Your task to perform on an android device: install app "Chime – Mobile Banking" Image 0: 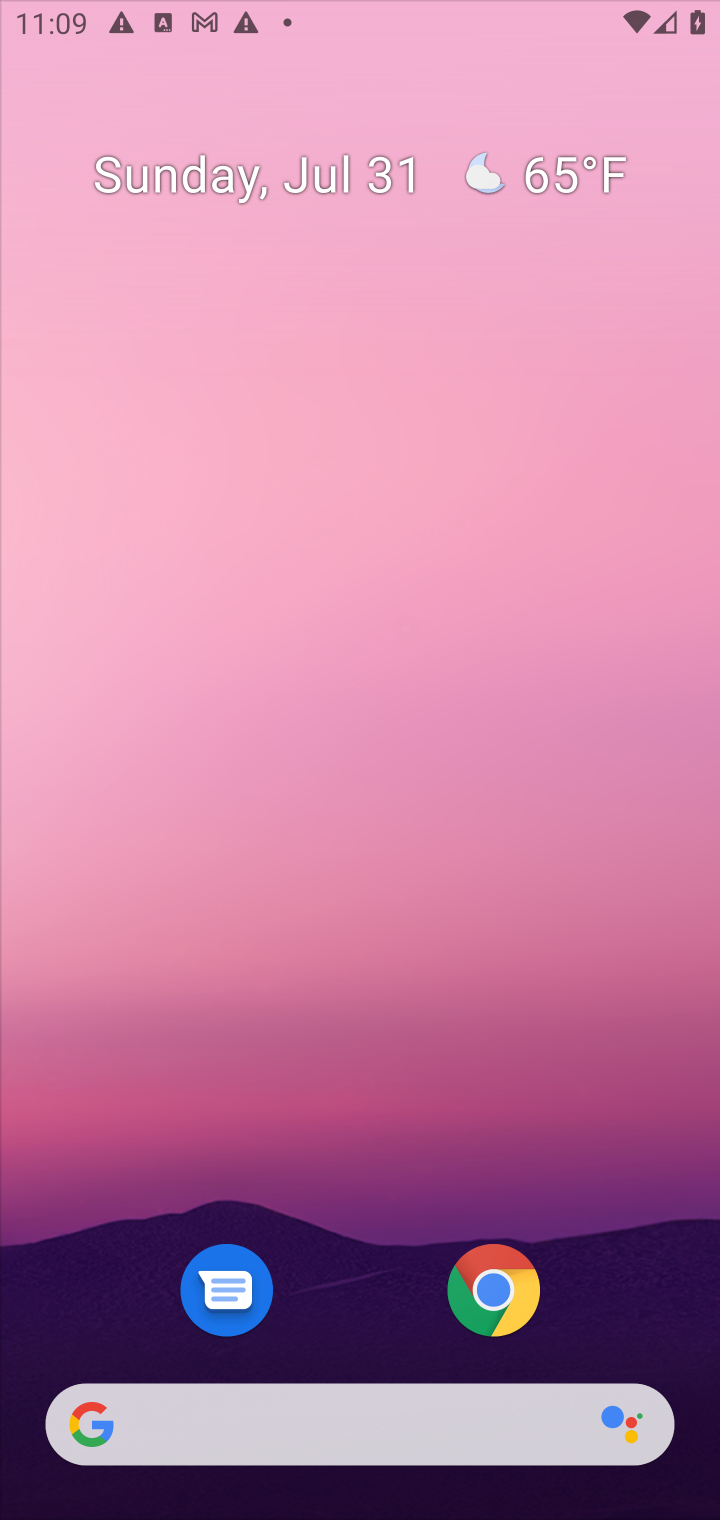
Step 0: press home button
Your task to perform on an android device: install app "Chime – Mobile Banking" Image 1: 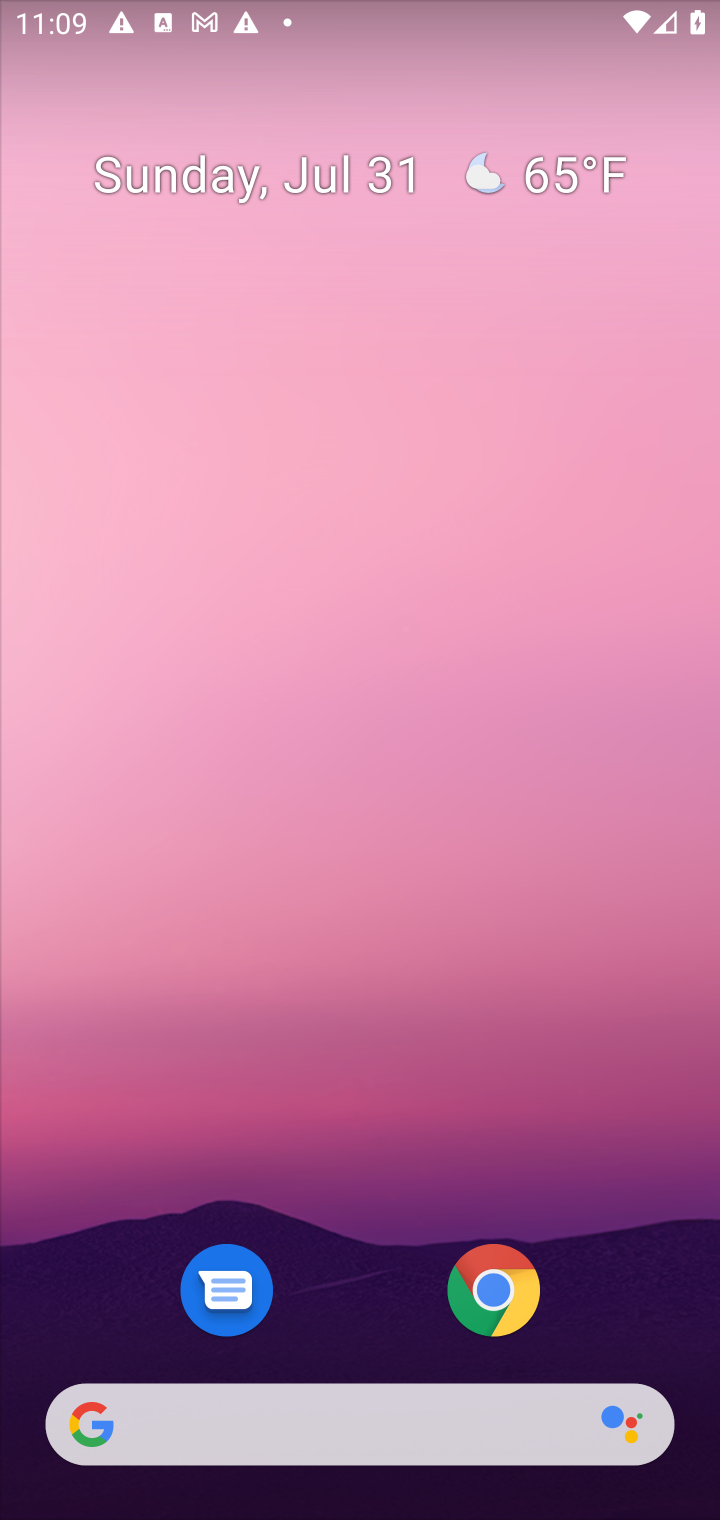
Step 1: drag from (604, 1118) to (565, 167)
Your task to perform on an android device: install app "Chime – Mobile Banking" Image 2: 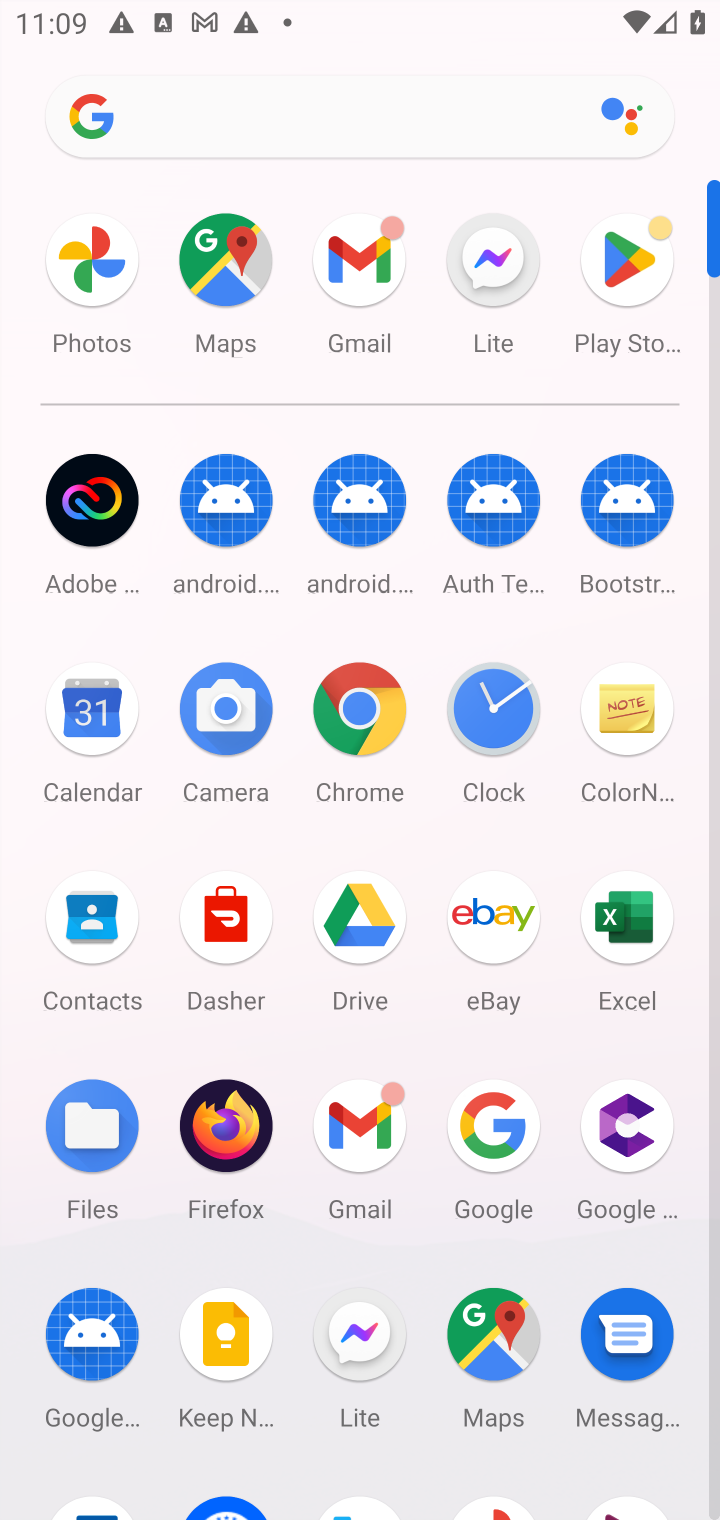
Step 2: click (621, 261)
Your task to perform on an android device: install app "Chime – Mobile Banking" Image 3: 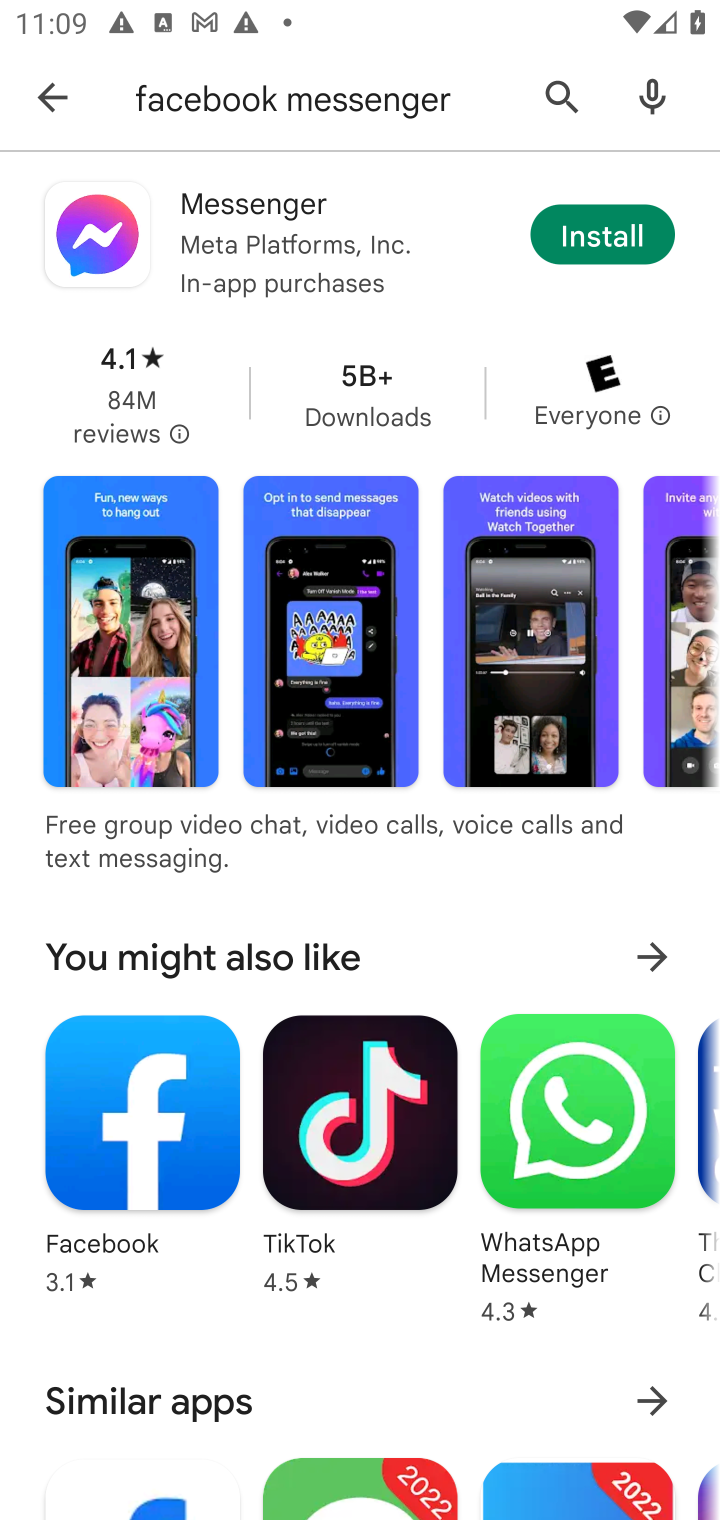
Step 3: click (556, 88)
Your task to perform on an android device: install app "Chime – Mobile Banking" Image 4: 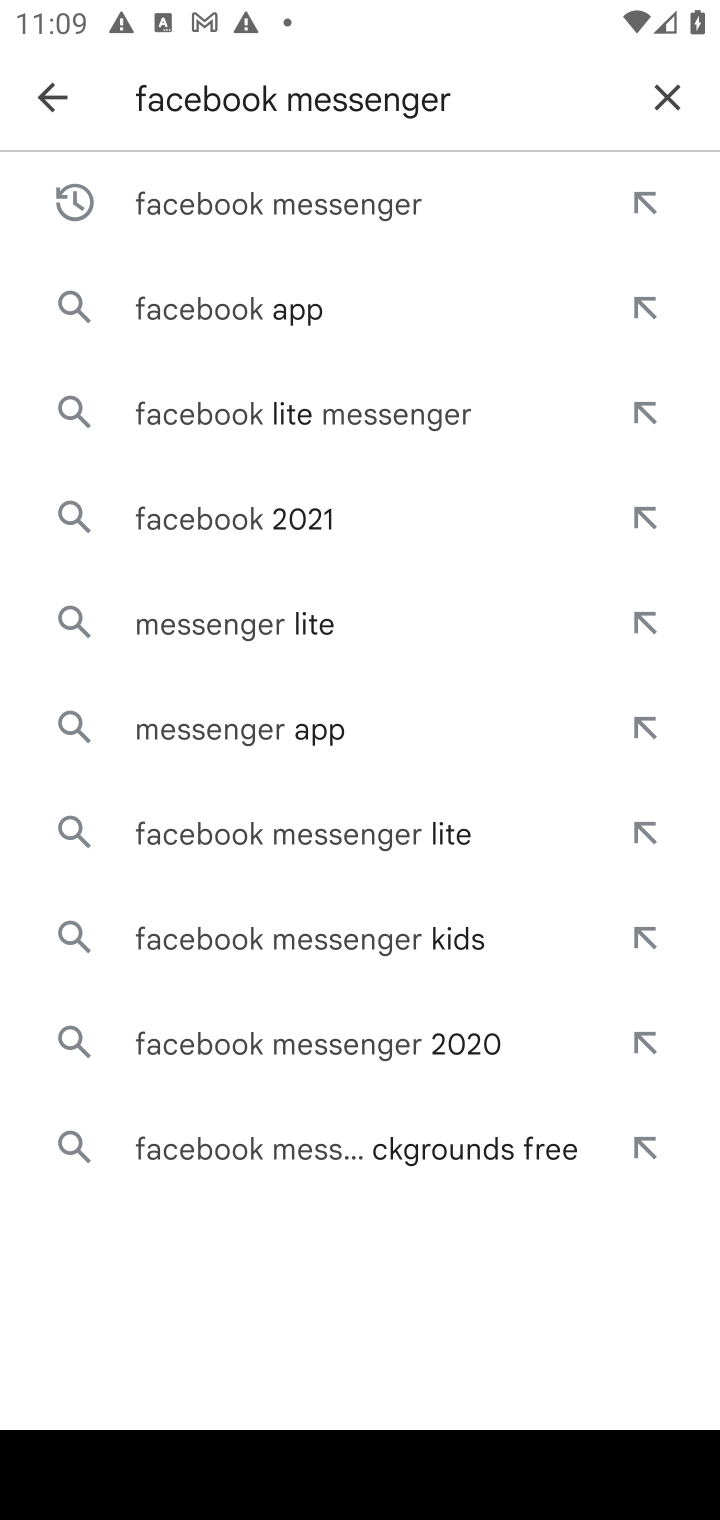
Step 4: click (669, 90)
Your task to perform on an android device: install app "Chime – Mobile Banking" Image 5: 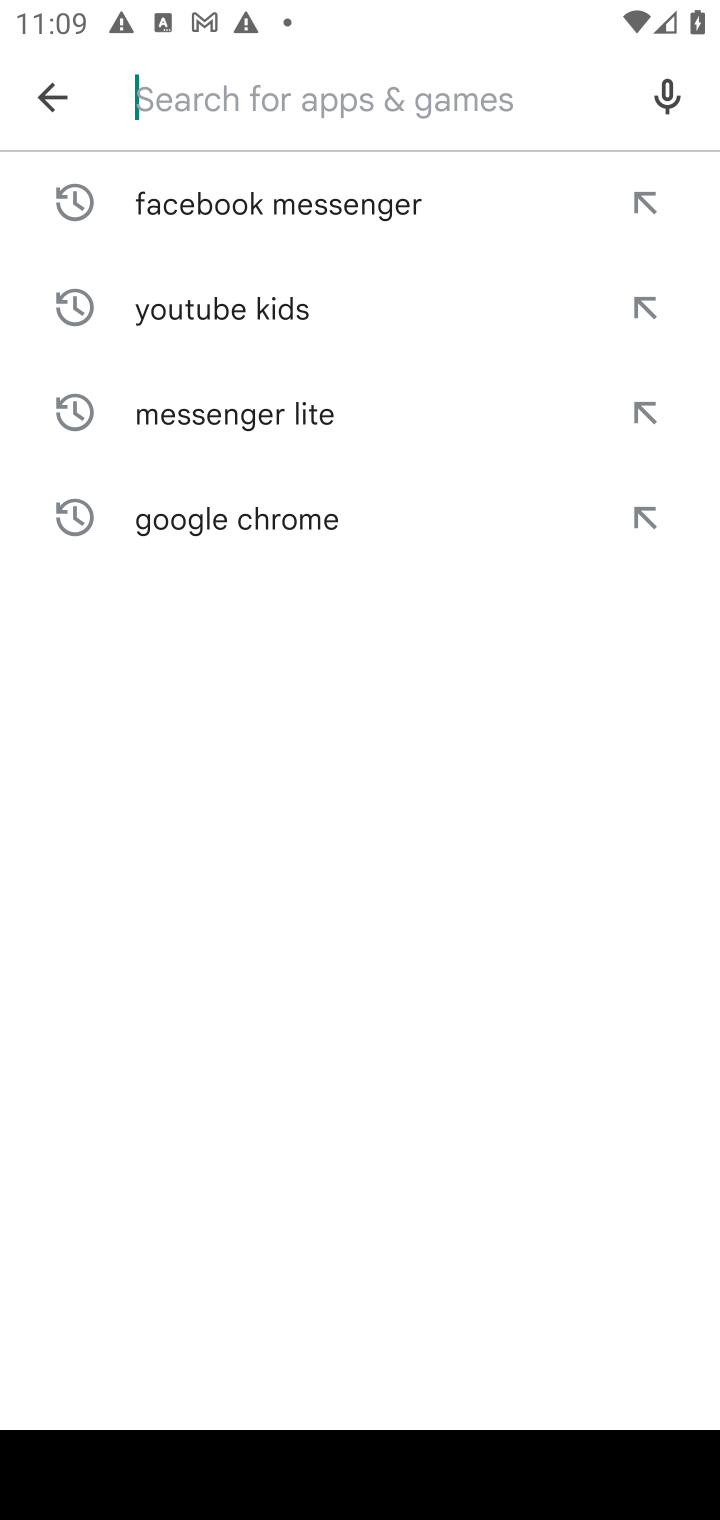
Step 5: type "mobile banking"
Your task to perform on an android device: install app "Chime – Mobile Banking" Image 6: 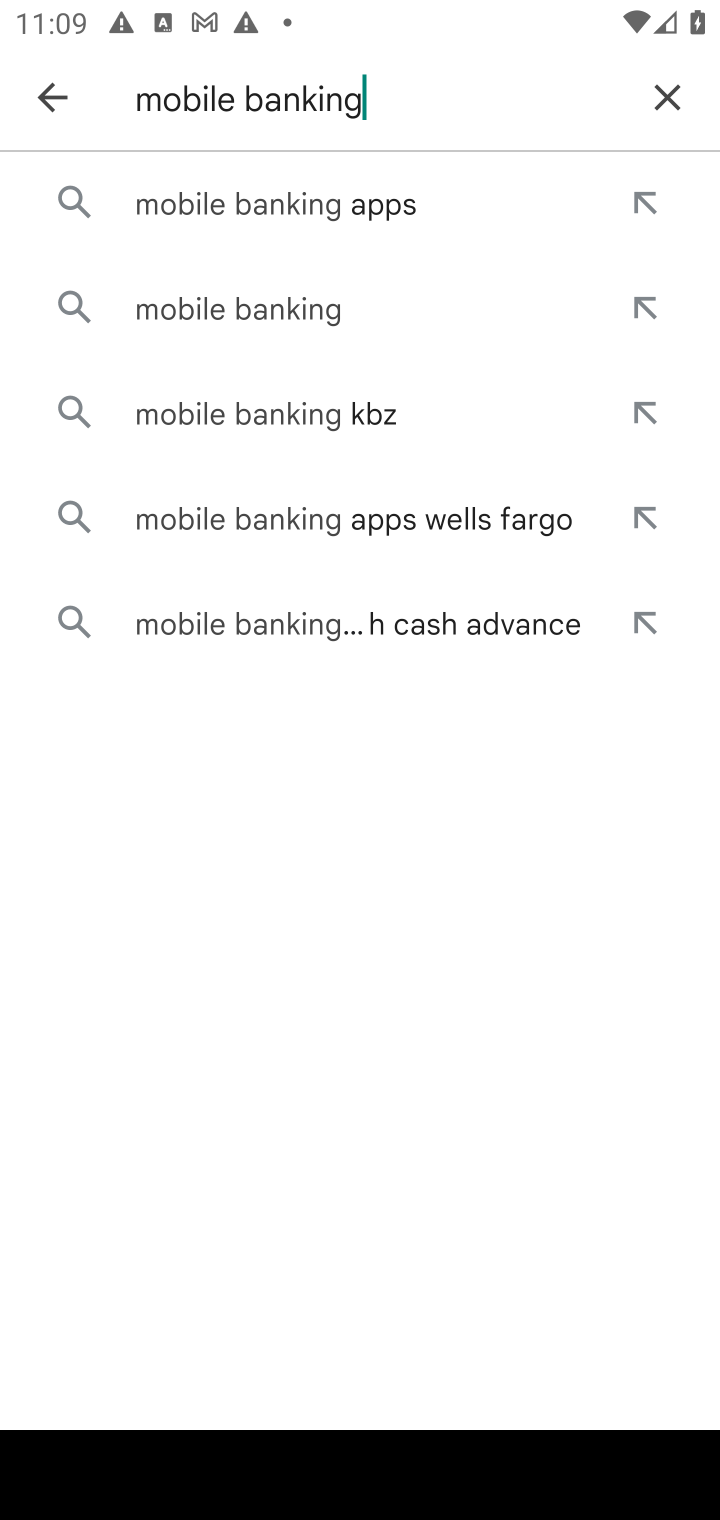
Step 6: click (289, 311)
Your task to perform on an android device: install app "Chime – Mobile Banking" Image 7: 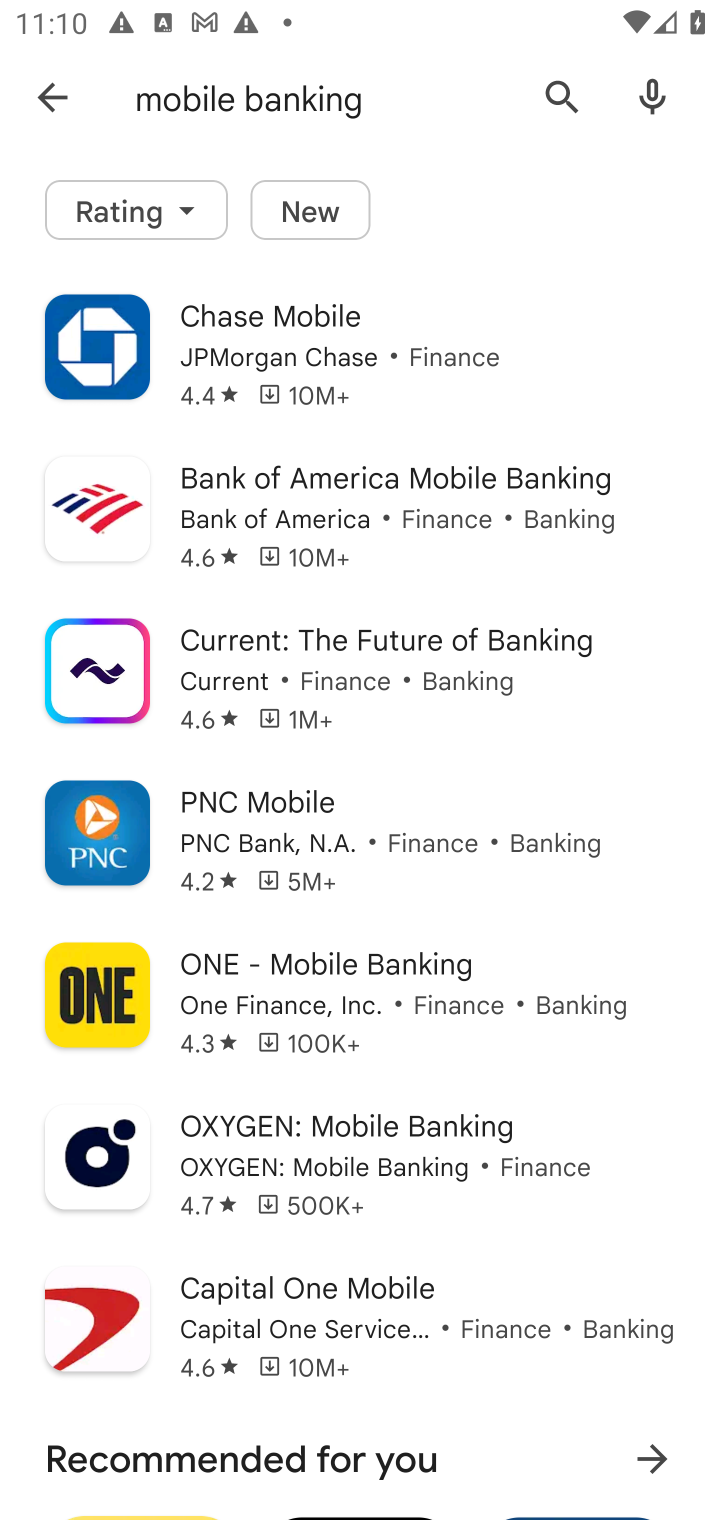
Step 7: task complete